Your task to perform on an android device: set default search engine in the chrome app Image 0: 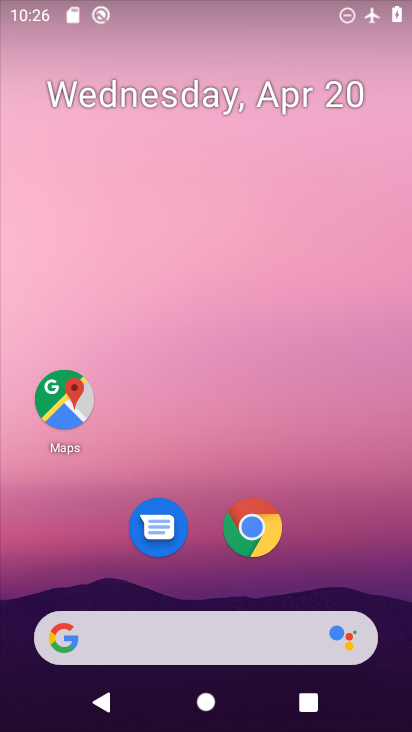
Step 0: click (247, 526)
Your task to perform on an android device: set default search engine in the chrome app Image 1: 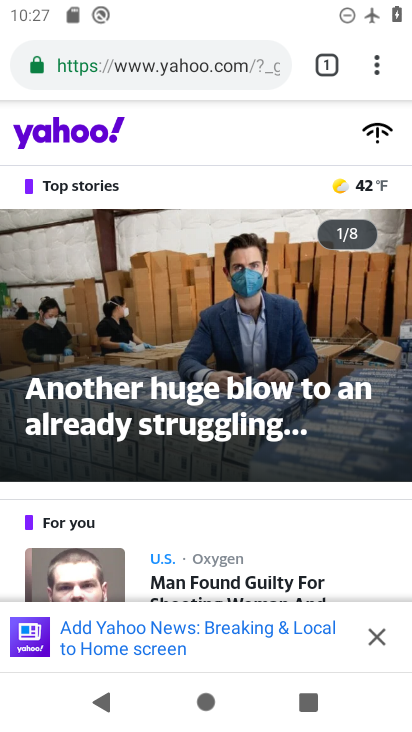
Step 1: click (366, 635)
Your task to perform on an android device: set default search engine in the chrome app Image 2: 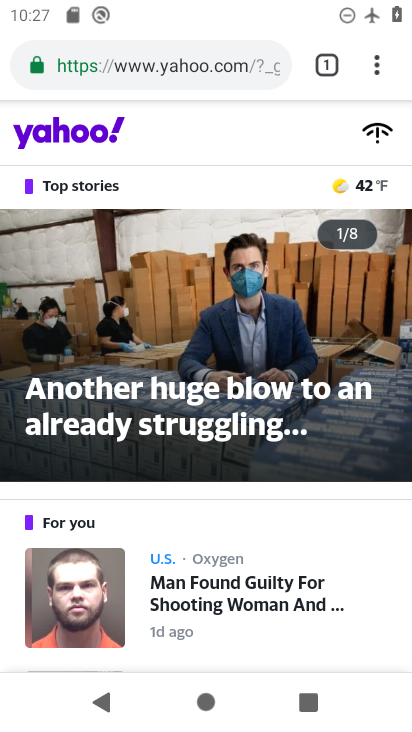
Step 2: click (375, 58)
Your task to perform on an android device: set default search engine in the chrome app Image 3: 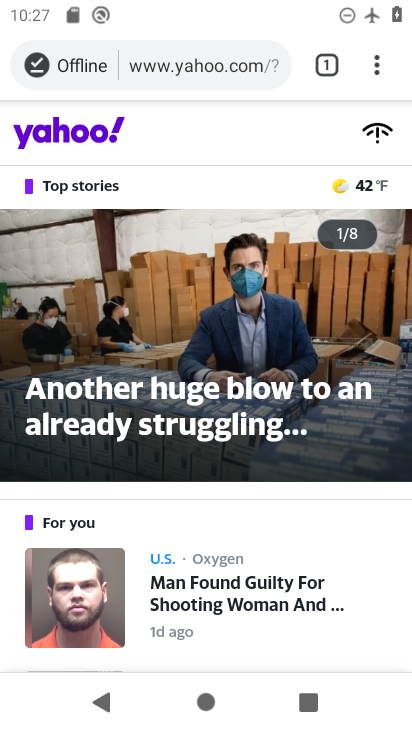
Step 3: click (378, 69)
Your task to perform on an android device: set default search engine in the chrome app Image 4: 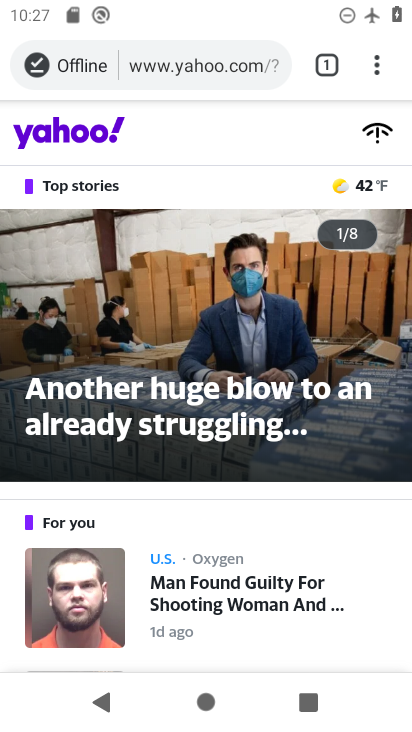
Step 4: click (374, 67)
Your task to perform on an android device: set default search engine in the chrome app Image 5: 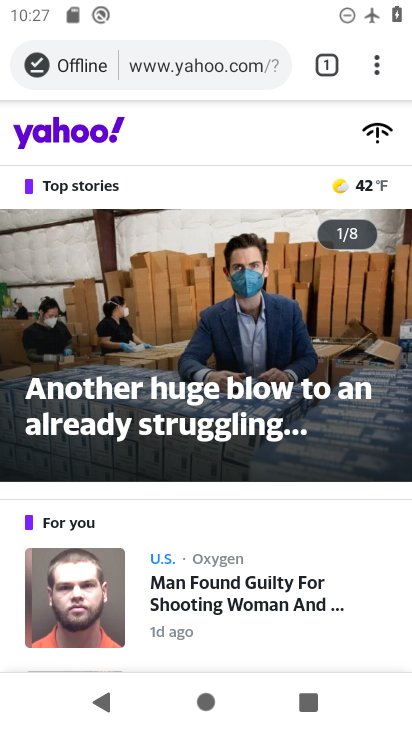
Step 5: click (378, 77)
Your task to perform on an android device: set default search engine in the chrome app Image 6: 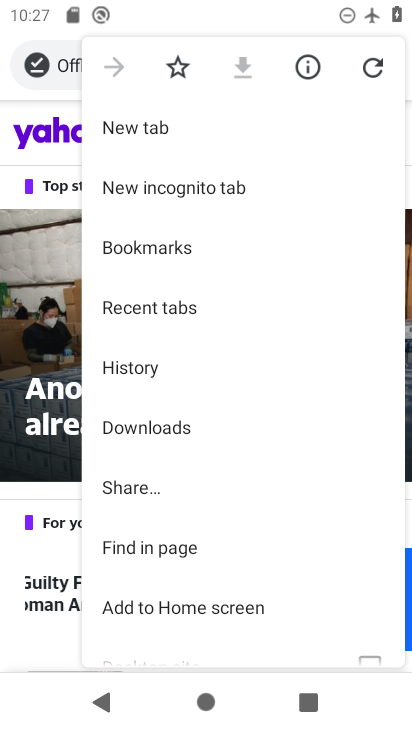
Step 6: drag from (153, 540) to (255, 61)
Your task to perform on an android device: set default search engine in the chrome app Image 7: 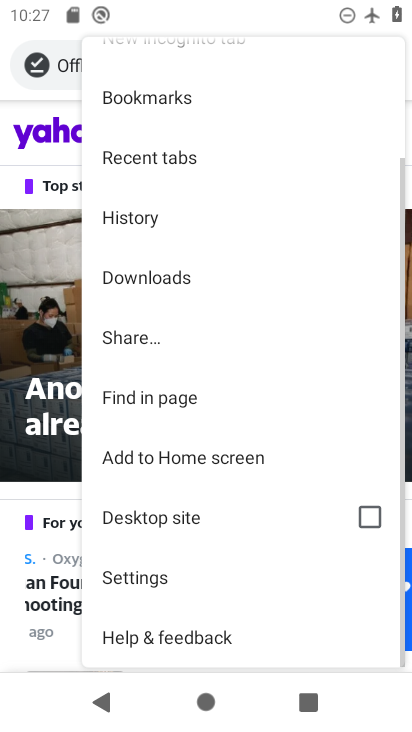
Step 7: click (137, 582)
Your task to perform on an android device: set default search engine in the chrome app Image 8: 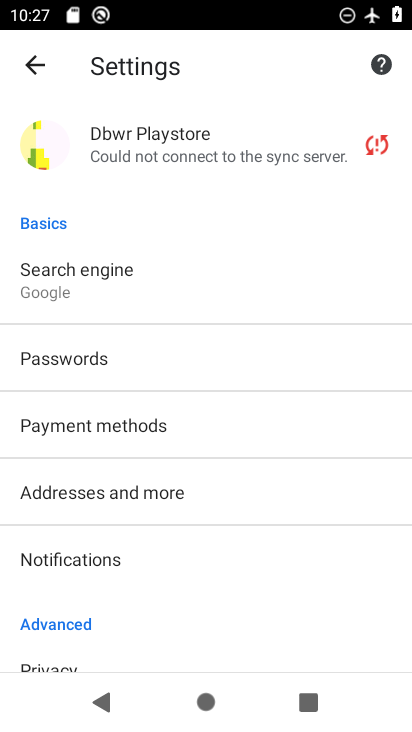
Step 8: click (84, 272)
Your task to perform on an android device: set default search engine in the chrome app Image 9: 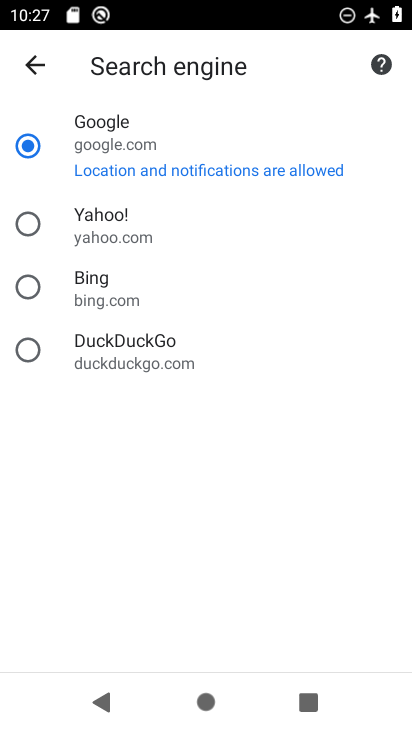
Step 9: task complete